Your task to perform on an android device: delete the emails in spam in the gmail app Image 0: 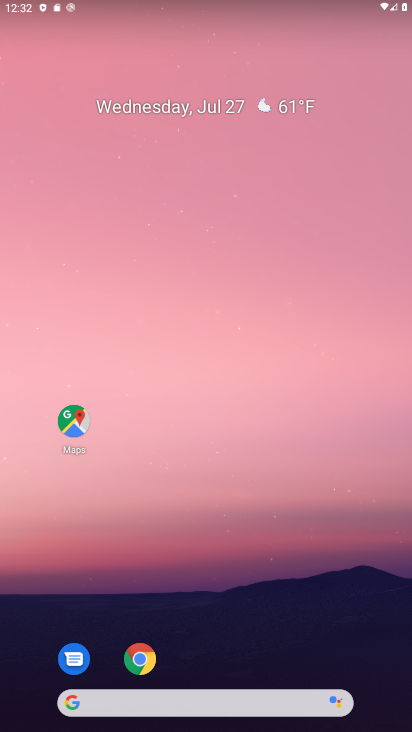
Step 0: drag from (208, 642) to (241, 120)
Your task to perform on an android device: delete the emails in spam in the gmail app Image 1: 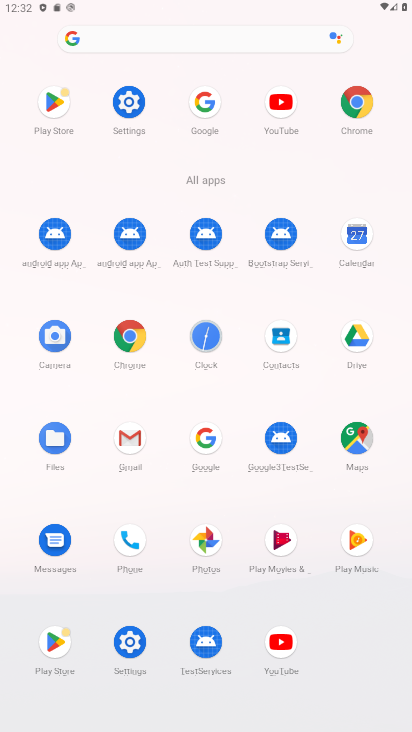
Step 1: click (116, 450)
Your task to perform on an android device: delete the emails in spam in the gmail app Image 2: 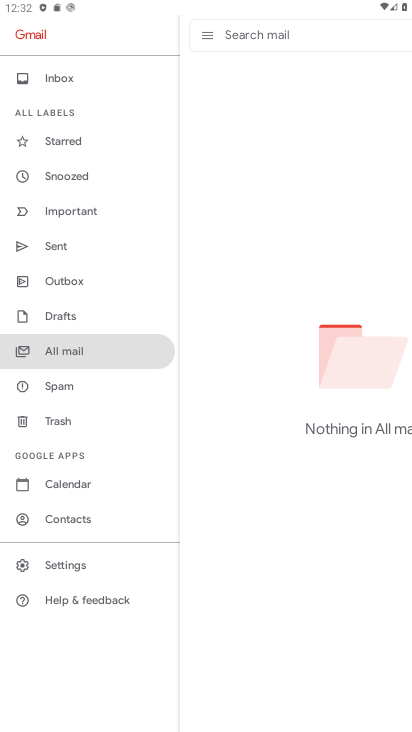
Step 2: click (82, 389)
Your task to perform on an android device: delete the emails in spam in the gmail app Image 3: 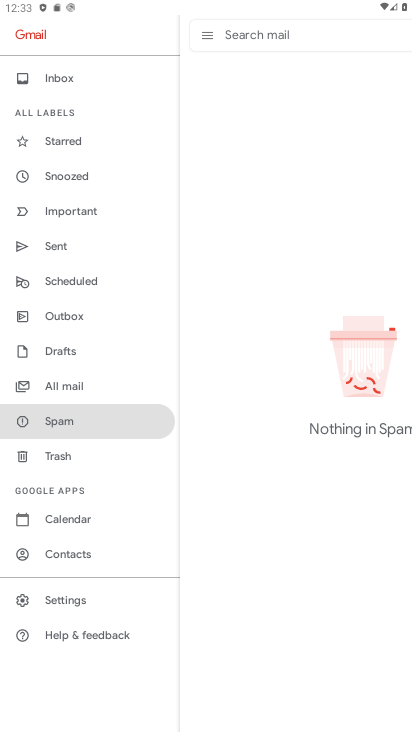
Step 3: task complete